Your task to perform on an android device: toggle priority inbox in the gmail app Image 0: 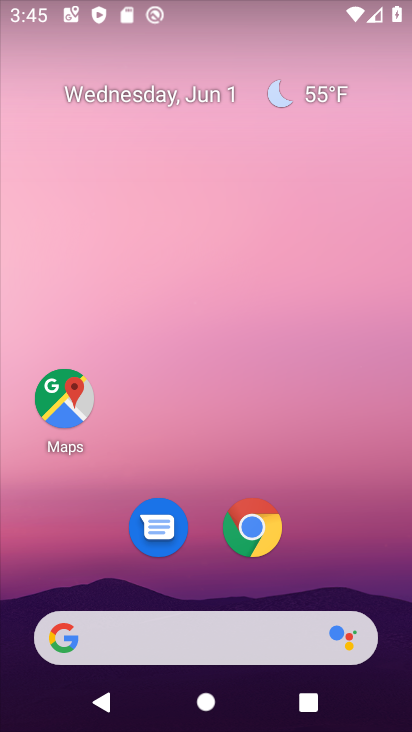
Step 0: press home button
Your task to perform on an android device: toggle priority inbox in the gmail app Image 1: 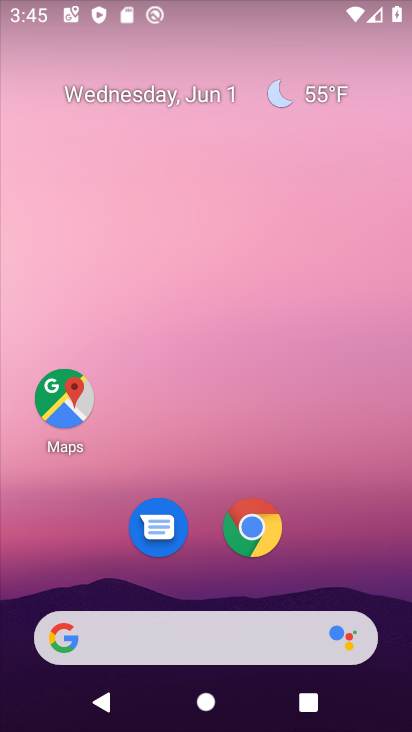
Step 1: drag from (330, 544) to (215, 136)
Your task to perform on an android device: toggle priority inbox in the gmail app Image 2: 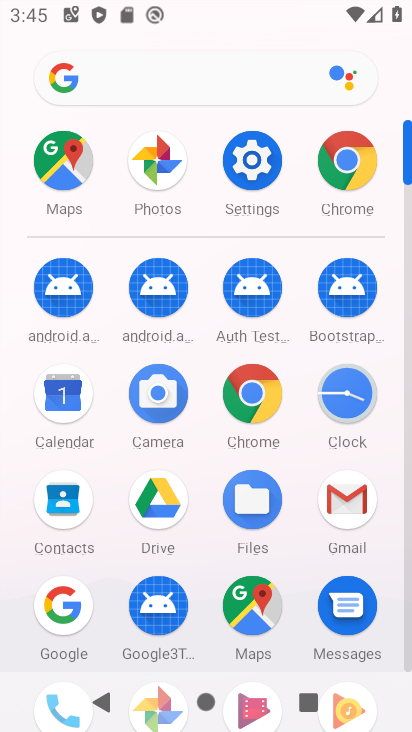
Step 2: click (362, 496)
Your task to perform on an android device: toggle priority inbox in the gmail app Image 3: 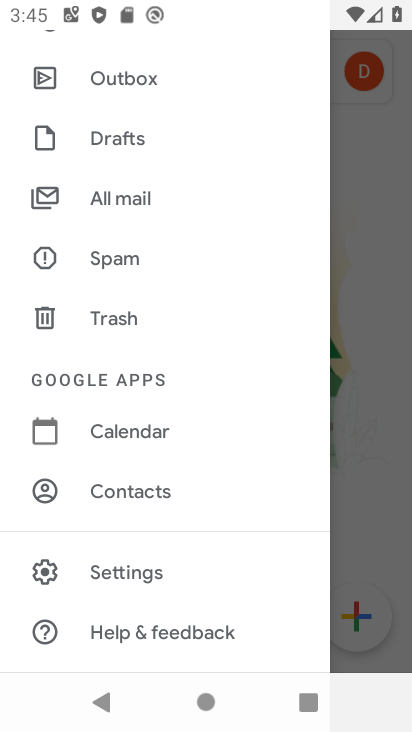
Step 3: click (134, 572)
Your task to perform on an android device: toggle priority inbox in the gmail app Image 4: 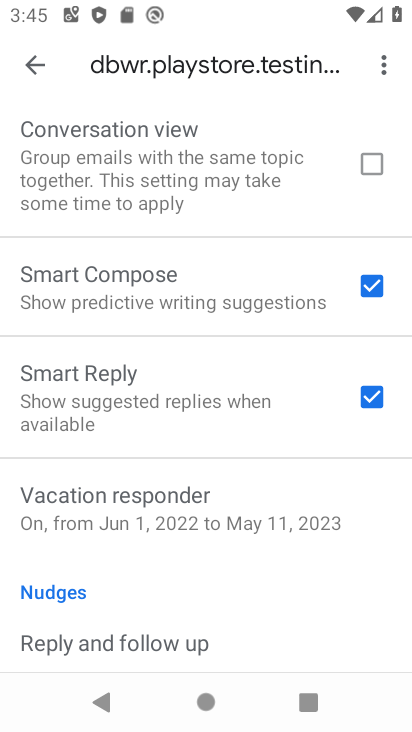
Step 4: drag from (218, 545) to (62, 233)
Your task to perform on an android device: toggle priority inbox in the gmail app Image 5: 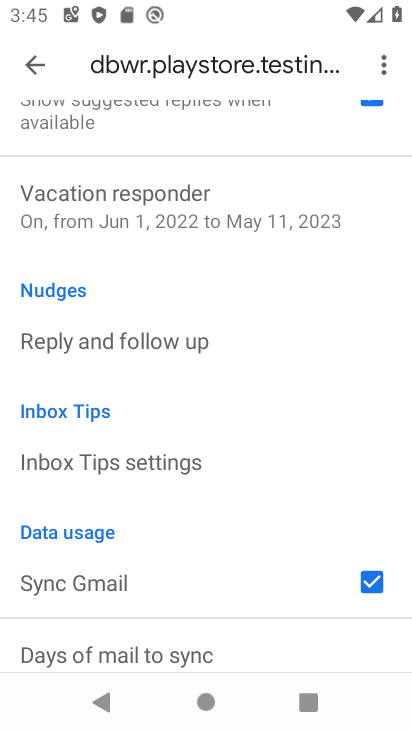
Step 5: drag from (212, 524) to (150, 252)
Your task to perform on an android device: toggle priority inbox in the gmail app Image 6: 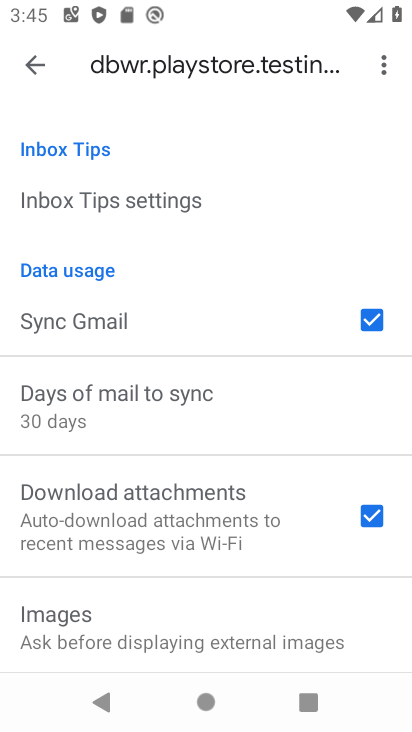
Step 6: drag from (253, 629) to (119, 375)
Your task to perform on an android device: toggle priority inbox in the gmail app Image 7: 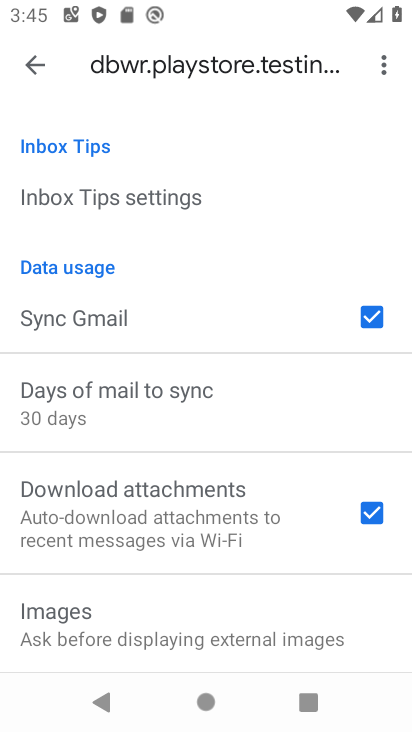
Step 7: drag from (230, 116) to (201, 731)
Your task to perform on an android device: toggle priority inbox in the gmail app Image 8: 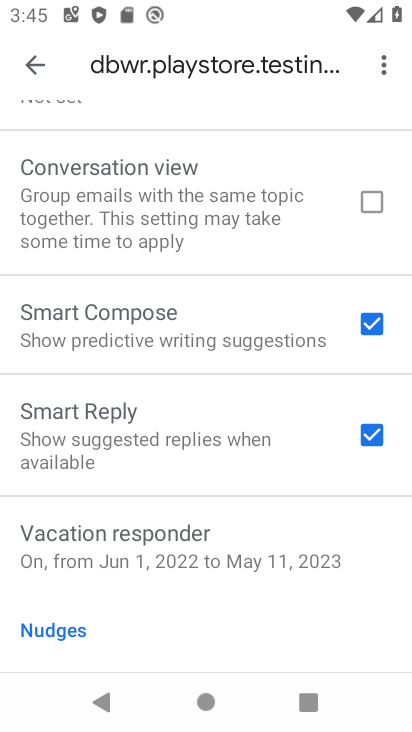
Step 8: drag from (148, 248) to (112, 713)
Your task to perform on an android device: toggle priority inbox in the gmail app Image 9: 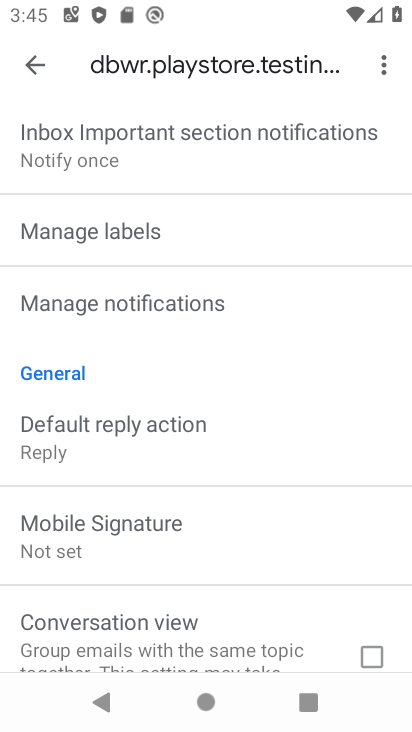
Step 9: drag from (205, 233) to (251, 686)
Your task to perform on an android device: toggle priority inbox in the gmail app Image 10: 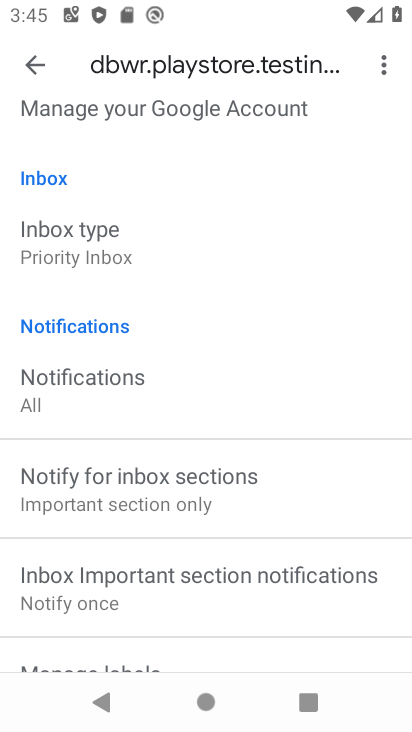
Step 10: click (83, 254)
Your task to perform on an android device: toggle priority inbox in the gmail app Image 11: 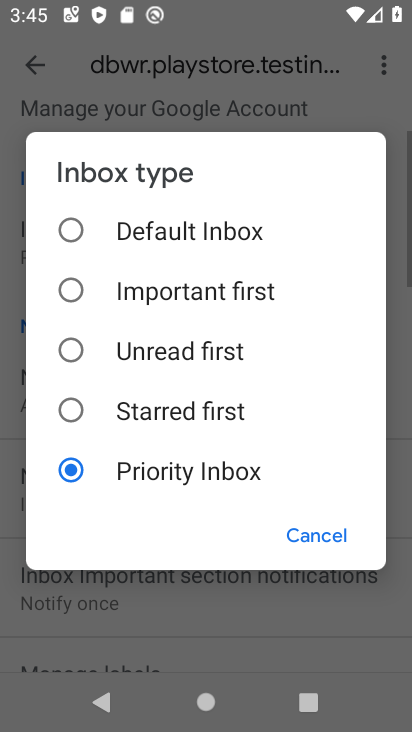
Step 11: click (90, 240)
Your task to perform on an android device: toggle priority inbox in the gmail app Image 12: 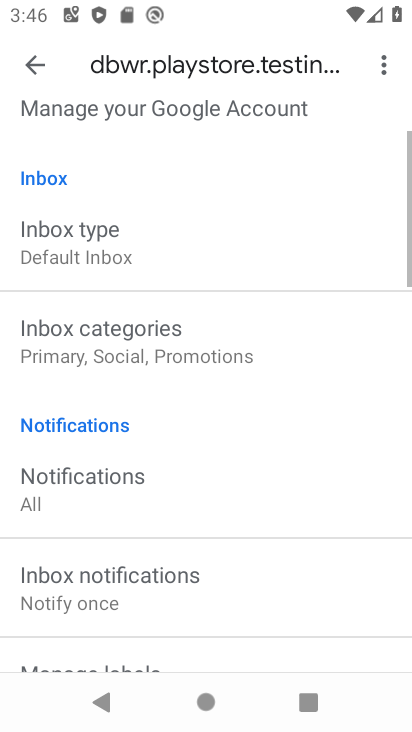
Step 12: task complete